Your task to perform on an android device: change timer sound Image 0: 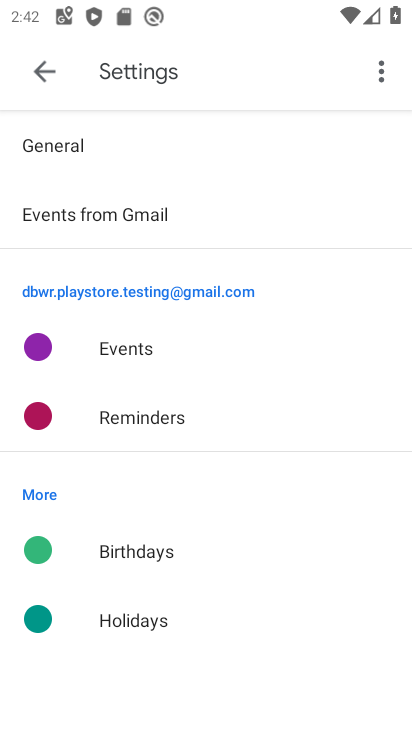
Step 0: press home button
Your task to perform on an android device: change timer sound Image 1: 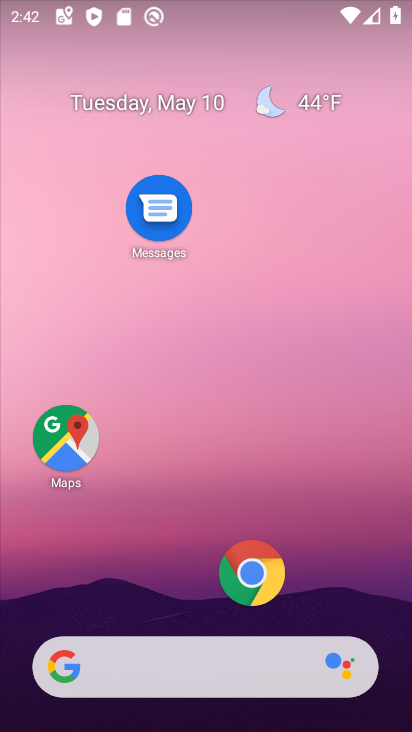
Step 1: drag from (190, 608) to (241, 135)
Your task to perform on an android device: change timer sound Image 2: 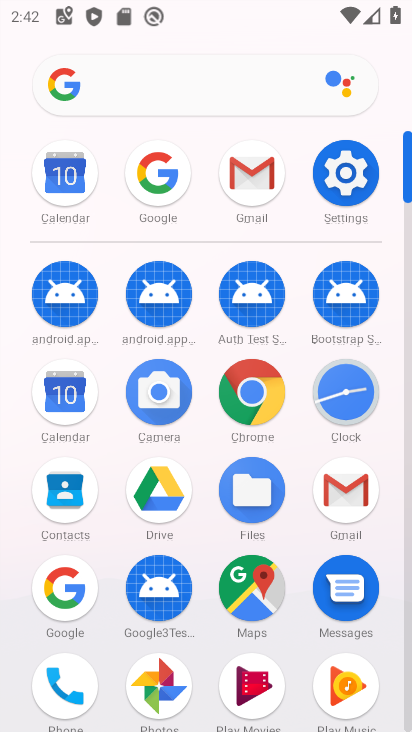
Step 2: click (337, 382)
Your task to perform on an android device: change timer sound Image 3: 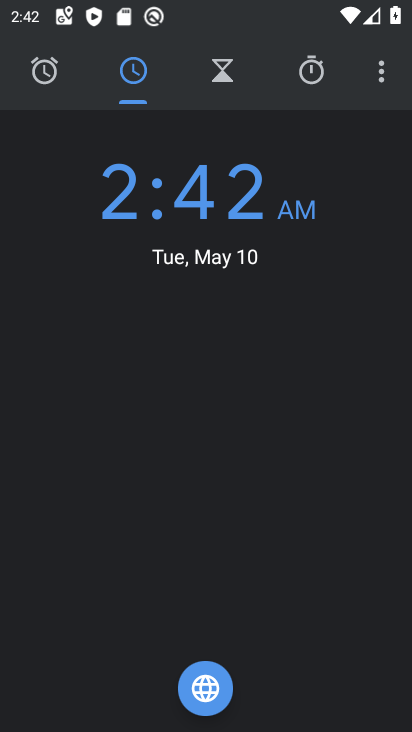
Step 3: click (379, 79)
Your task to perform on an android device: change timer sound Image 4: 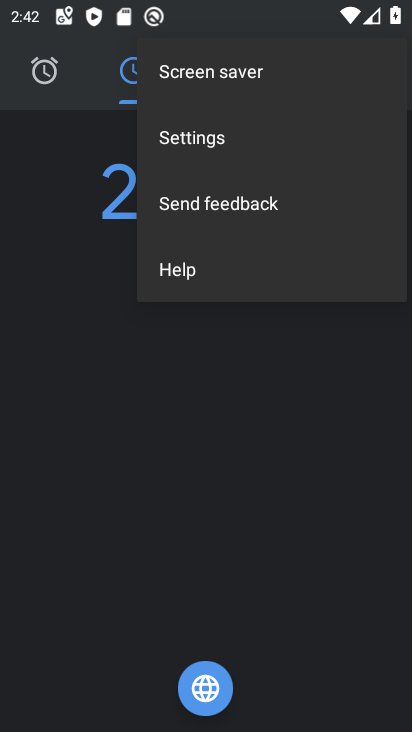
Step 4: click (210, 149)
Your task to perform on an android device: change timer sound Image 5: 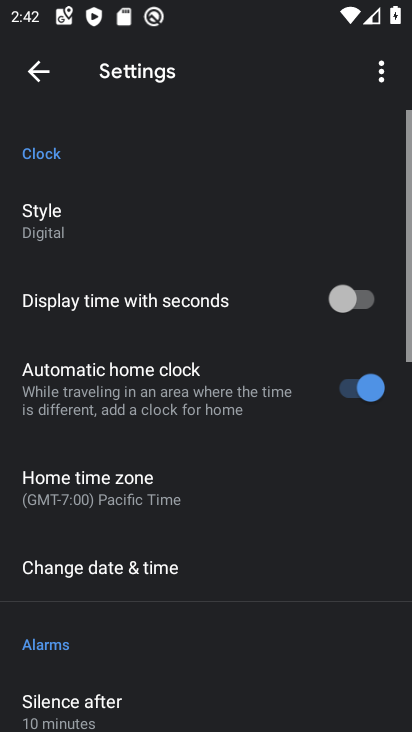
Step 5: drag from (179, 637) to (235, 419)
Your task to perform on an android device: change timer sound Image 6: 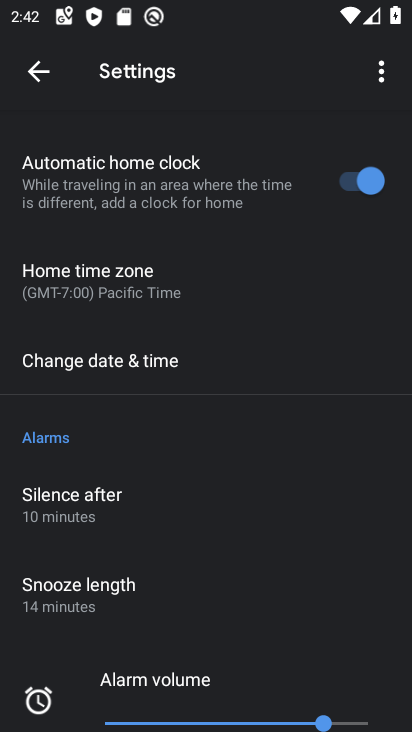
Step 6: drag from (165, 651) to (251, 377)
Your task to perform on an android device: change timer sound Image 7: 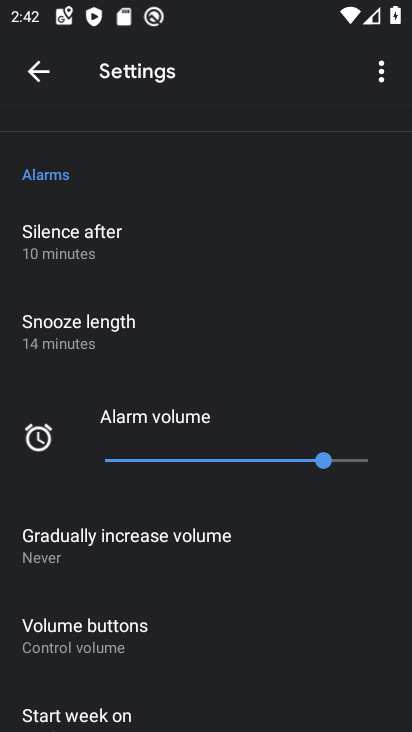
Step 7: drag from (185, 564) to (261, 257)
Your task to perform on an android device: change timer sound Image 8: 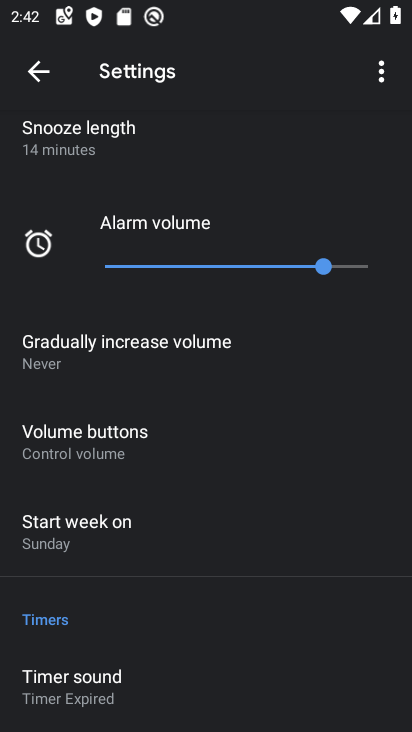
Step 8: click (155, 676)
Your task to perform on an android device: change timer sound Image 9: 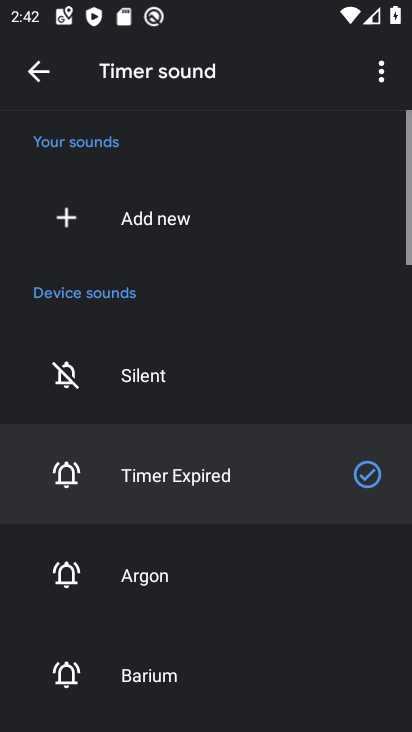
Step 9: click (167, 688)
Your task to perform on an android device: change timer sound Image 10: 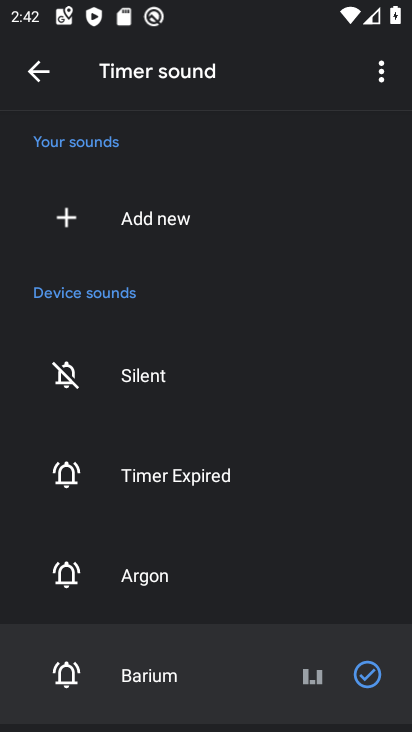
Step 10: task complete